Your task to perform on an android device: Search for usb-c on bestbuy, select the first entry, add it to the cart, then select checkout. Image 0: 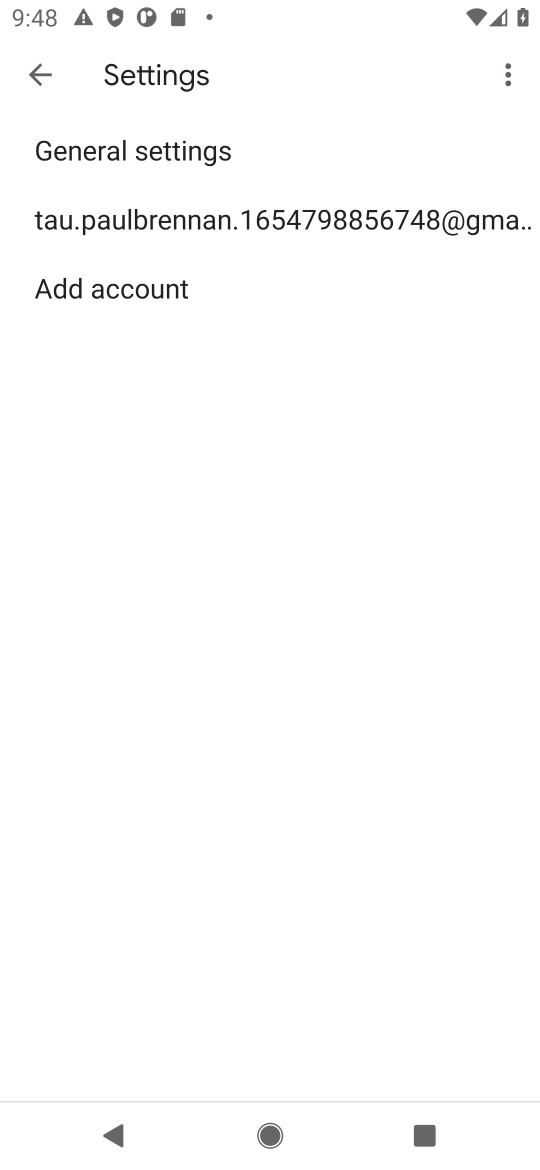
Step 0: press home button
Your task to perform on an android device: Search for usb-c on bestbuy, select the first entry, add it to the cart, then select checkout. Image 1: 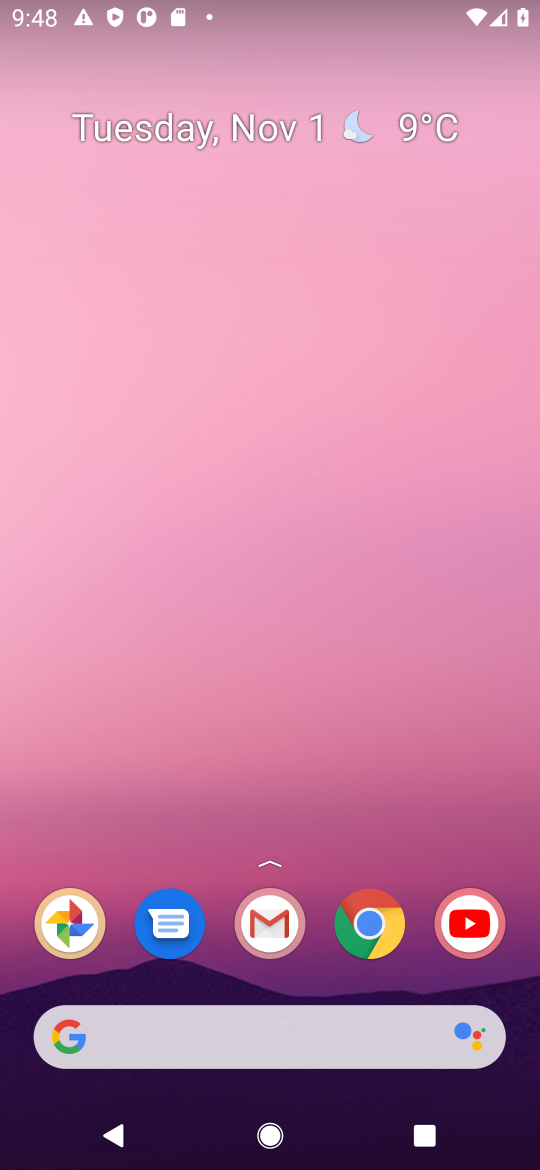
Step 1: drag from (320, 937) to (364, 215)
Your task to perform on an android device: Search for usb-c on bestbuy, select the first entry, add it to the cart, then select checkout. Image 2: 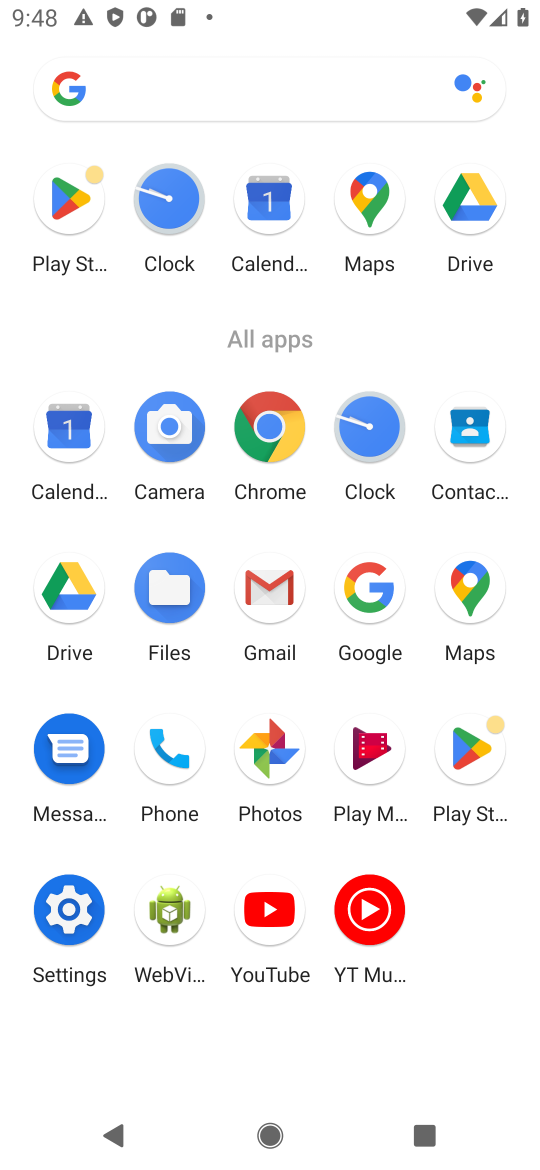
Step 2: click (263, 430)
Your task to perform on an android device: Search for usb-c on bestbuy, select the first entry, add it to the cart, then select checkout. Image 3: 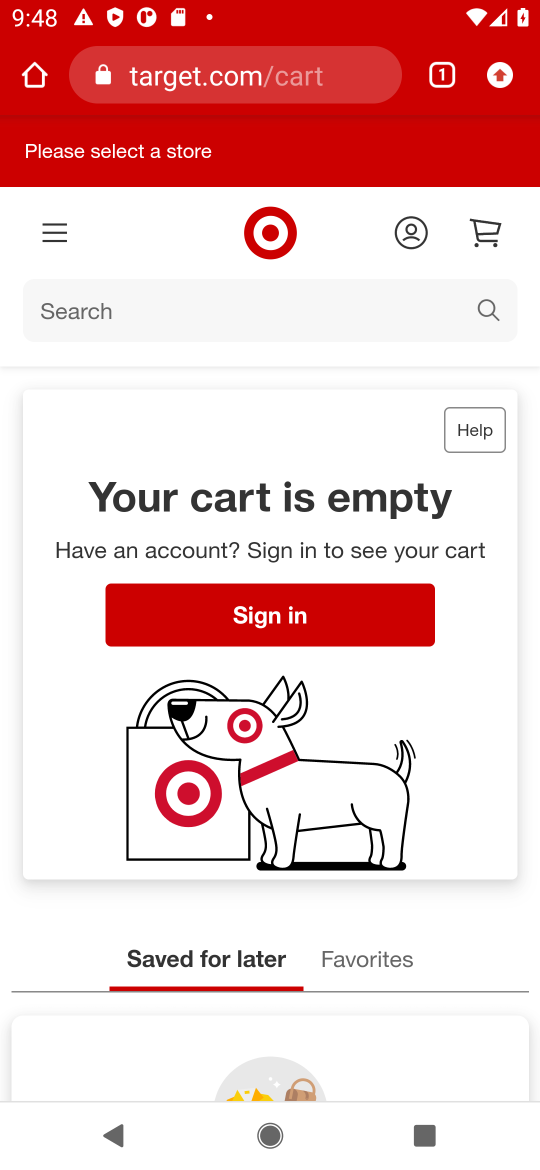
Step 3: click (252, 140)
Your task to perform on an android device: Search for usb-c on bestbuy, select the first entry, add it to the cart, then select checkout. Image 4: 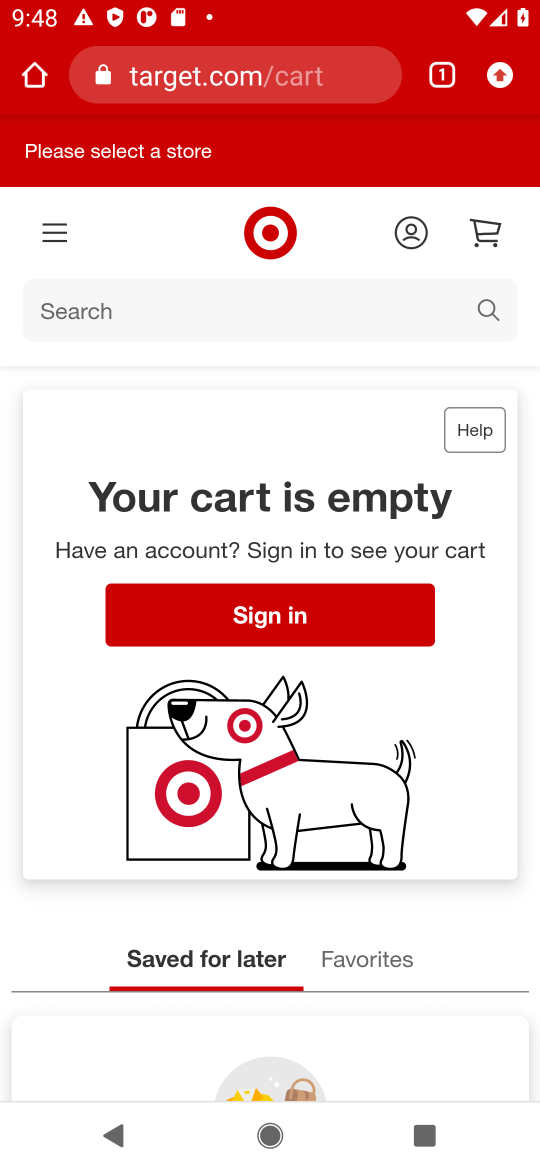
Step 4: click (285, 58)
Your task to perform on an android device: Search for usb-c on bestbuy, select the first entry, add it to the cart, then select checkout. Image 5: 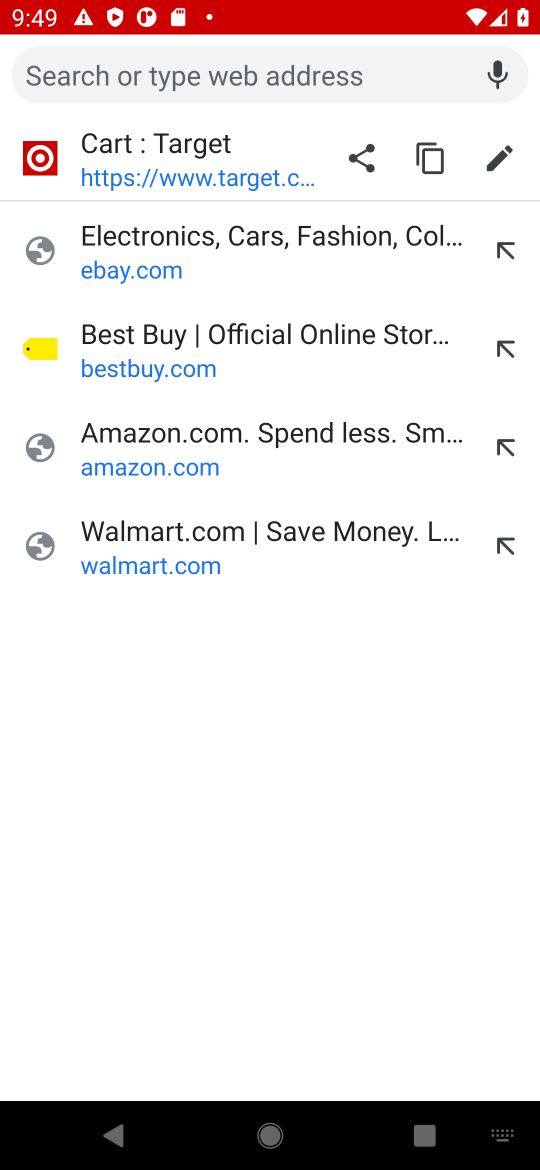
Step 5: type "bestbuy.com"
Your task to perform on an android device: Search for usb-c on bestbuy, select the first entry, add it to the cart, then select checkout. Image 6: 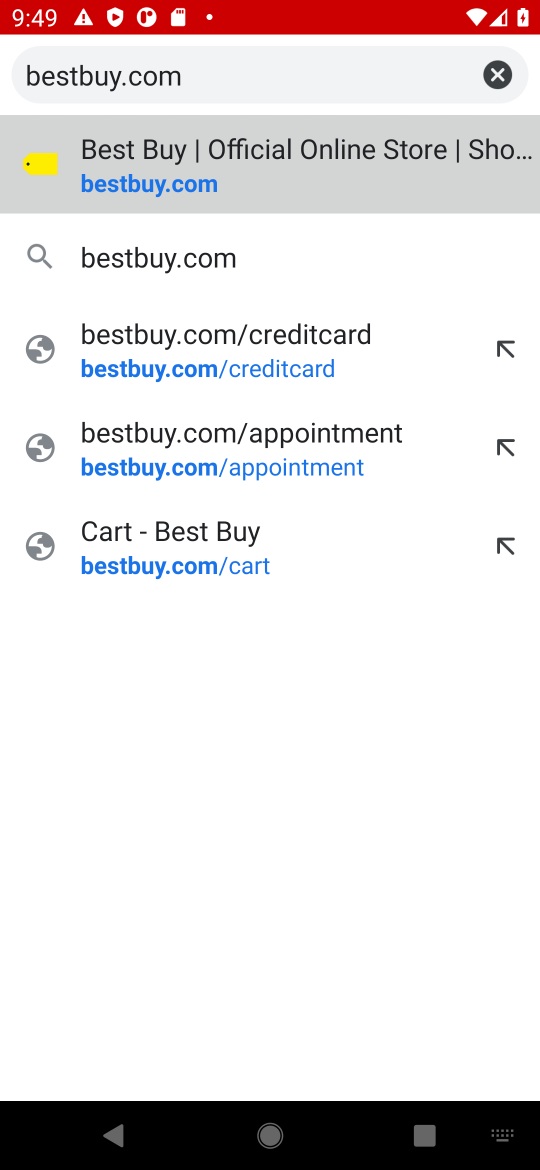
Step 6: press enter
Your task to perform on an android device: Search for usb-c on bestbuy, select the first entry, add it to the cart, then select checkout. Image 7: 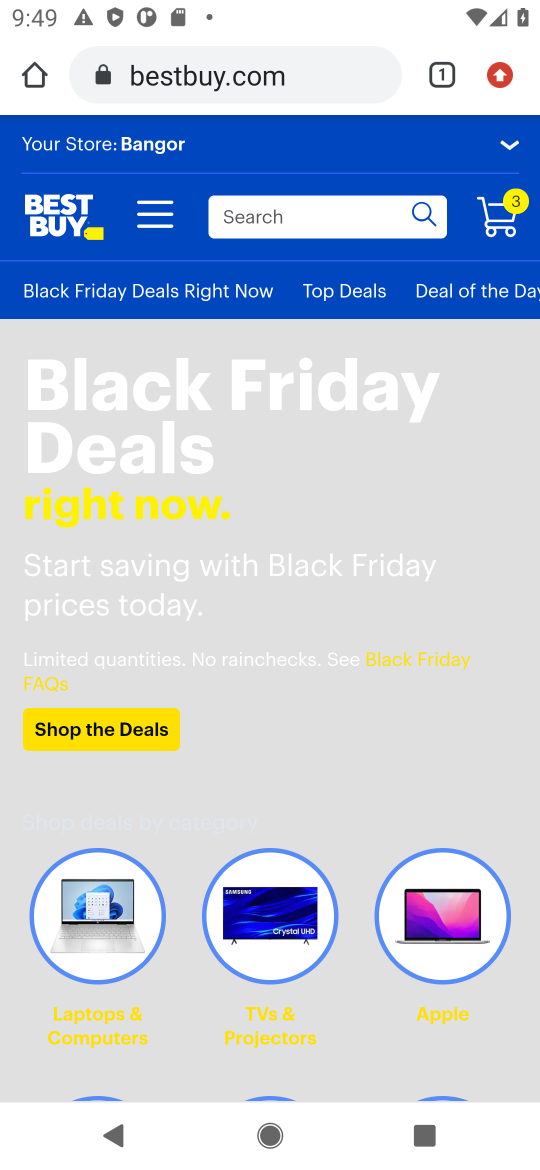
Step 7: click (325, 216)
Your task to perform on an android device: Search for usb-c on bestbuy, select the first entry, add it to the cart, then select checkout. Image 8: 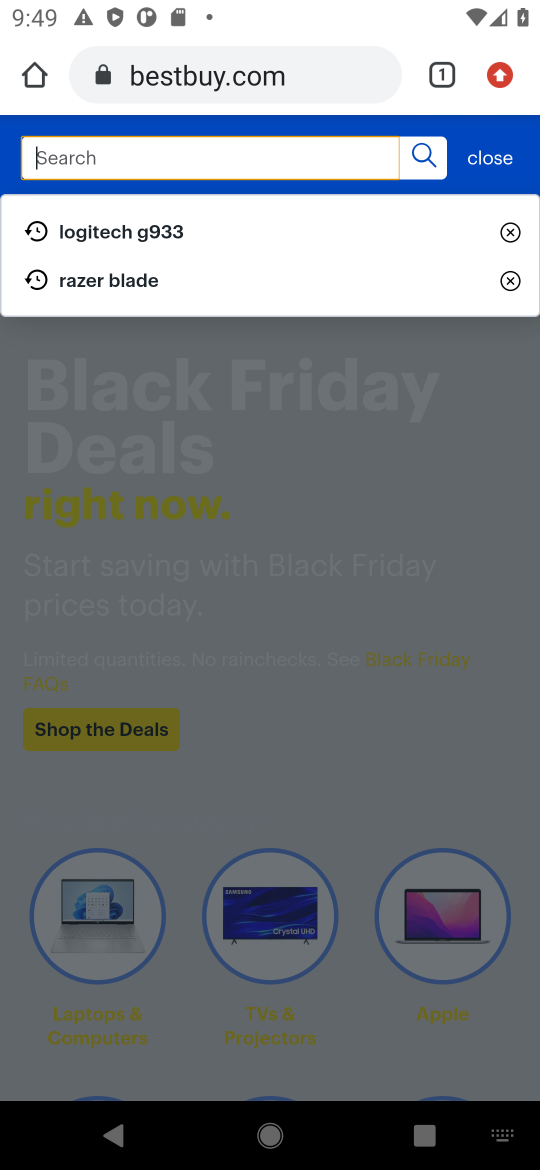
Step 8: type "usb-c"
Your task to perform on an android device: Search for usb-c on bestbuy, select the first entry, add it to the cart, then select checkout. Image 9: 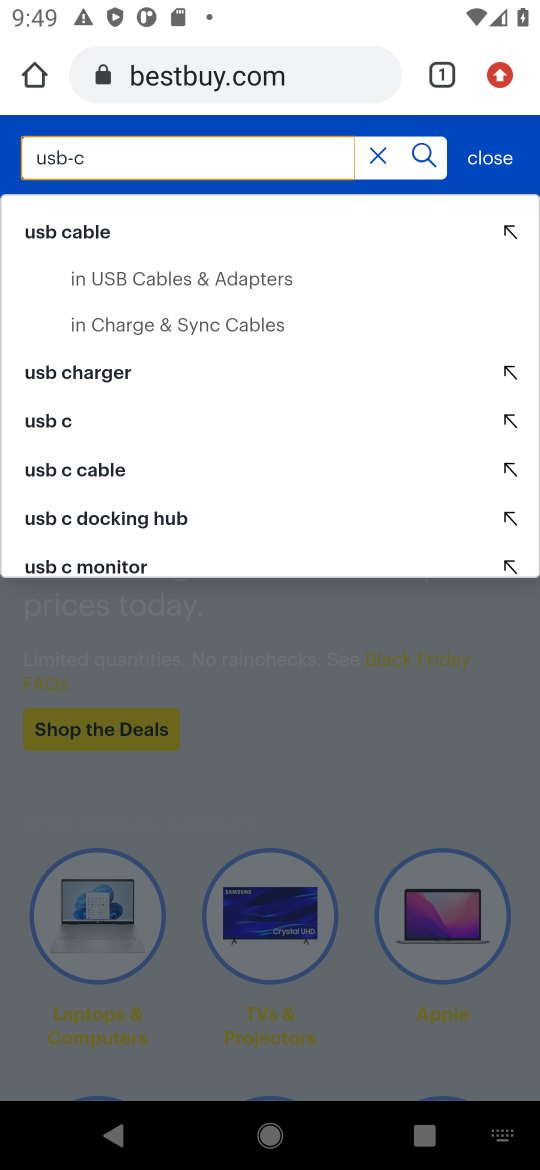
Step 9: press enter
Your task to perform on an android device: Search for usb-c on bestbuy, select the first entry, add it to the cart, then select checkout. Image 10: 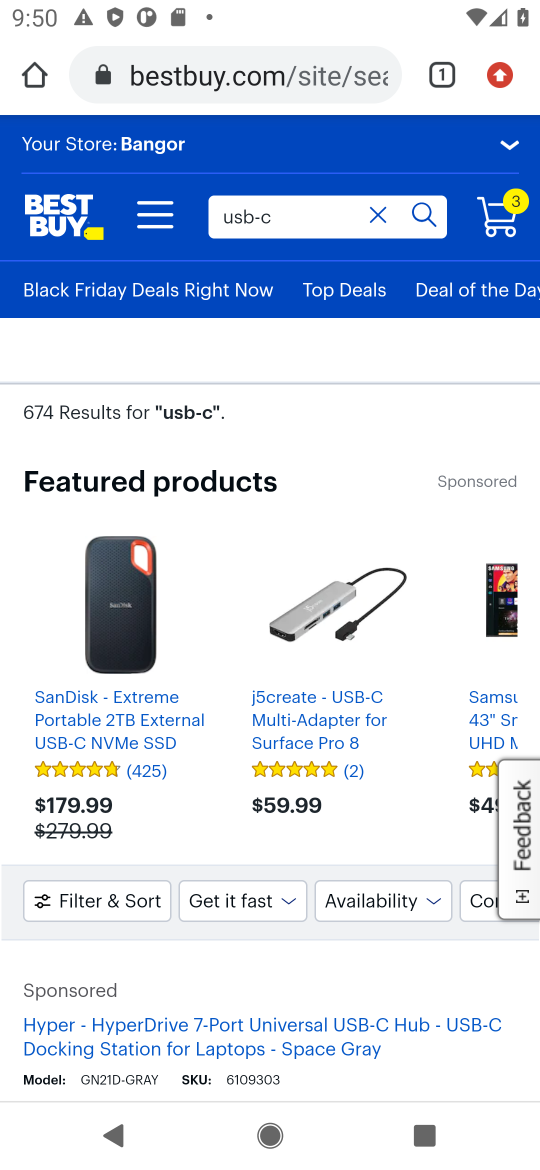
Step 10: drag from (240, 921) to (284, 185)
Your task to perform on an android device: Search for usb-c on bestbuy, select the first entry, add it to the cart, then select checkout. Image 11: 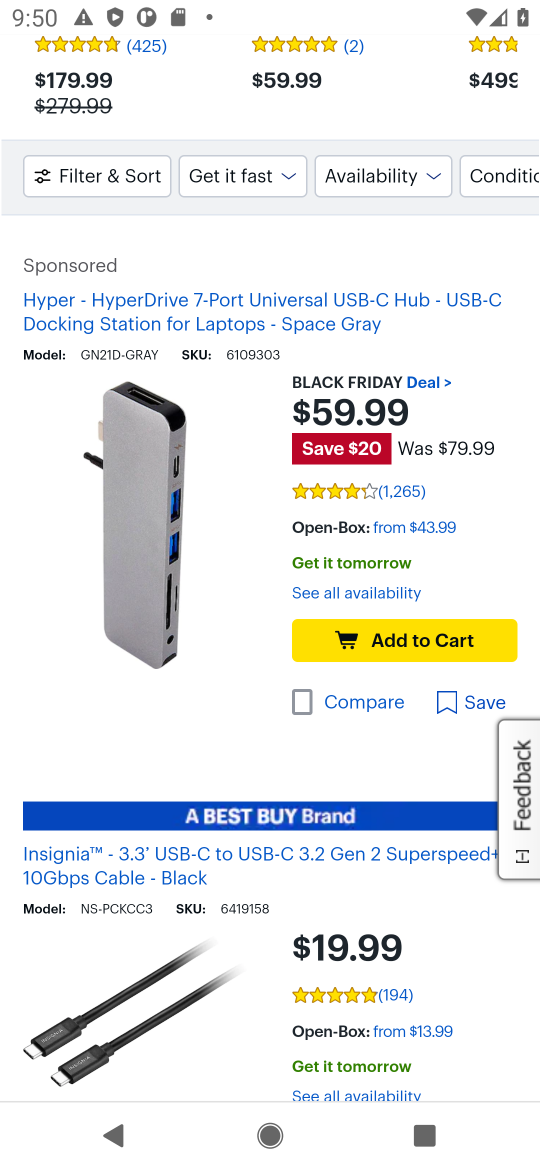
Step 11: drag from (354, 945) to (423, 525)
Your task to perform on an android device: Search for usb-c on bestbuy, select the first entry, add it to the cart, then select checkout. Image 12: 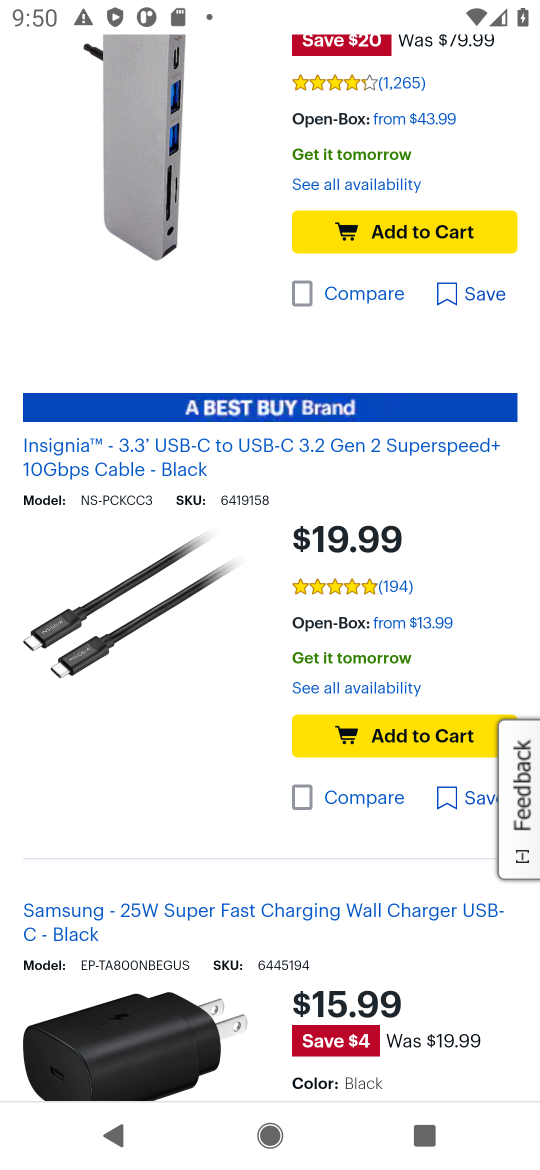
Step 12: click (376, 741)
Your task to perform on an android device: Search for usb-c on bestbuy, select the first entry, add it to the cart, then select checkout. Image 13: 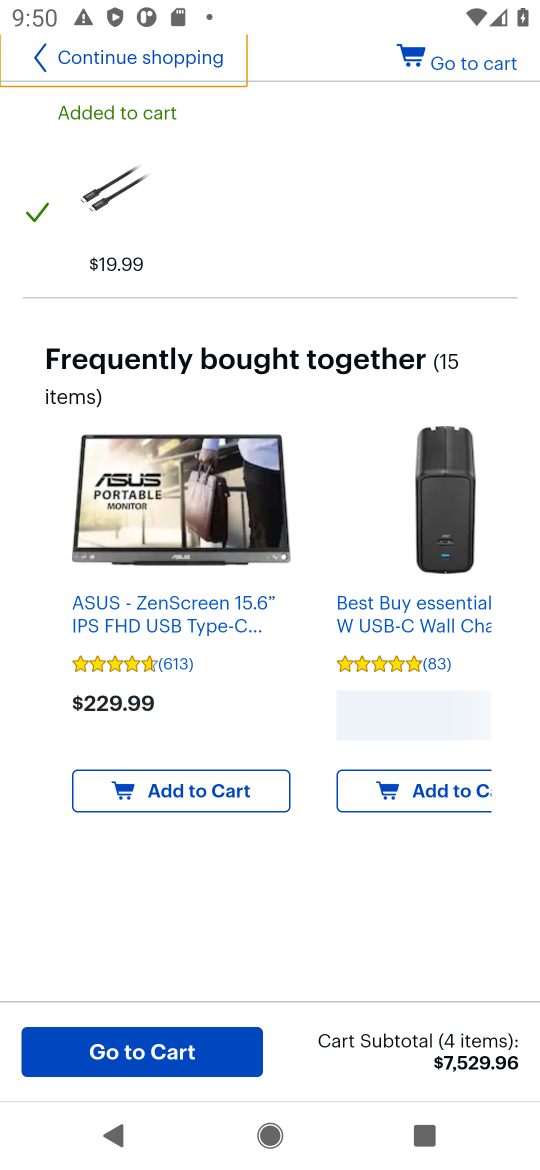
Step 13: drag from (334, 210) to (279, 996)
Your task to perform on an android device: Search for usb-c on bestbuy, select the first entry, add it to the cart, then select checkout. Image 14: 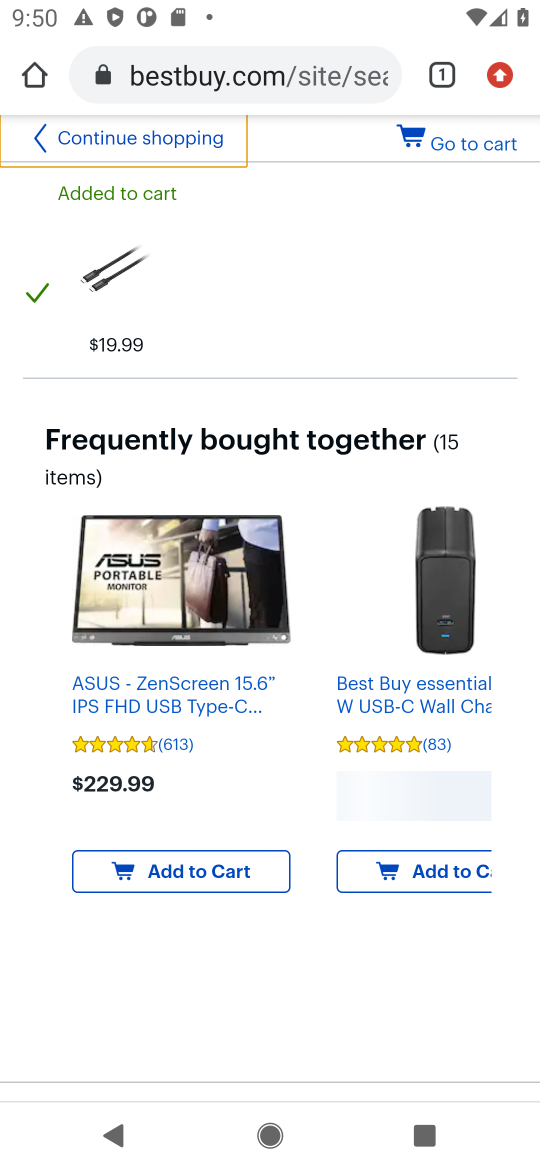
Step 14: drag from (336, 252) to (269, 939)
Your task to perform on an android device: Search for usb-c on bestbuy, select the first entry, add it to the cart, then select checkout. Image 15: 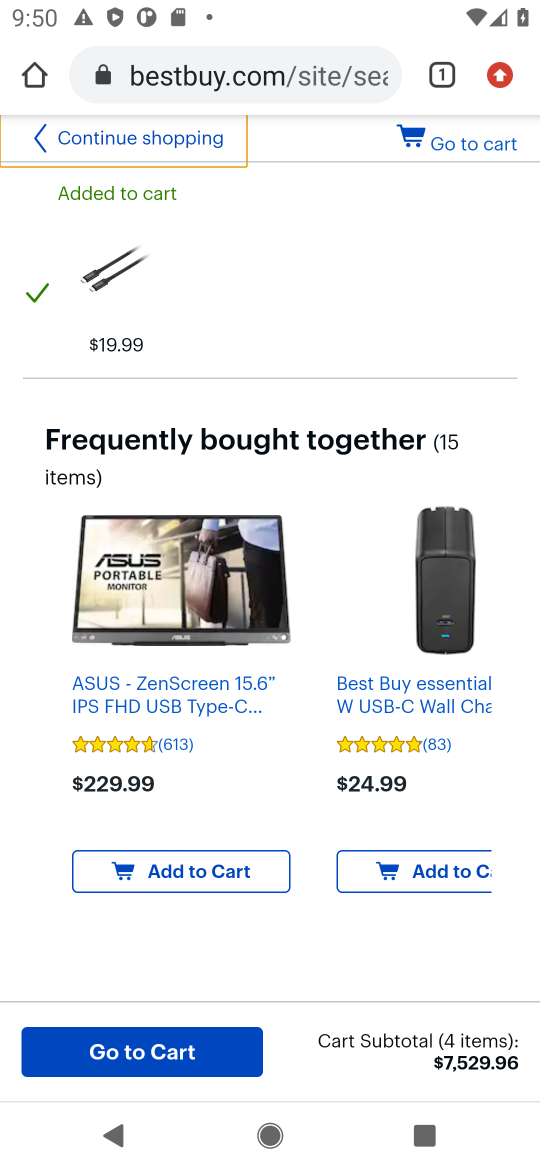
Step 15: click (181, 1055)
Your task to perform on an android device: Search for usb-c on bestbuy, select the first entry, add it to the cart, then select checkout. Image 16: 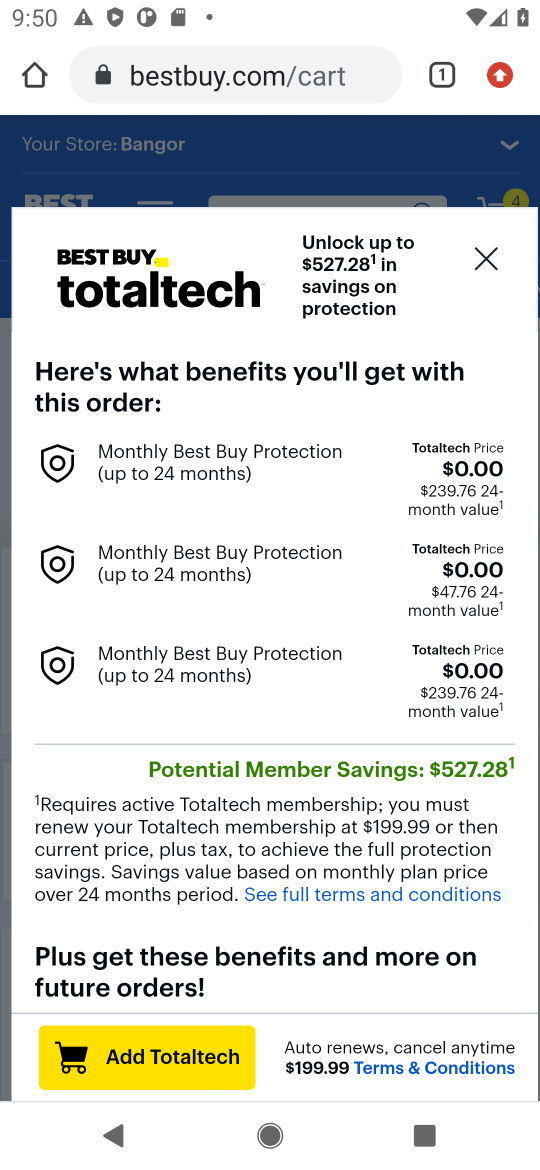
Step 16: click (494, 254)
Your task to perform on an android device: Search for usb-c on bestbuy, select the first entry, add it to the cart, then select checkout. Image 17: 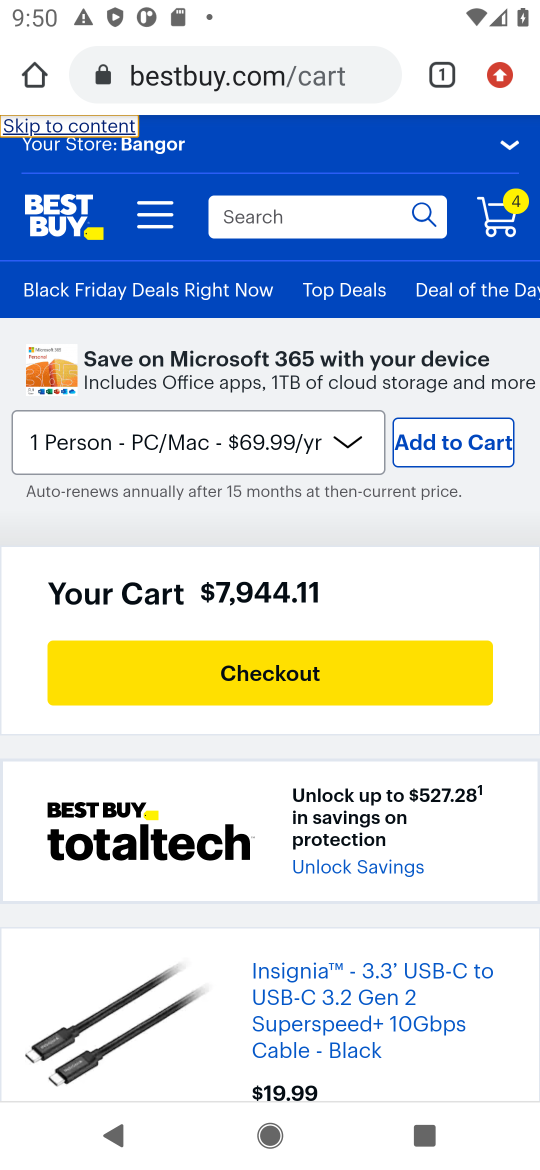
Step 17: click (360, 671)
Your task to perform on an android device: Search for usb-c on bestbuy, select the first entry, add it to the cart, then select checkout. Image 18: 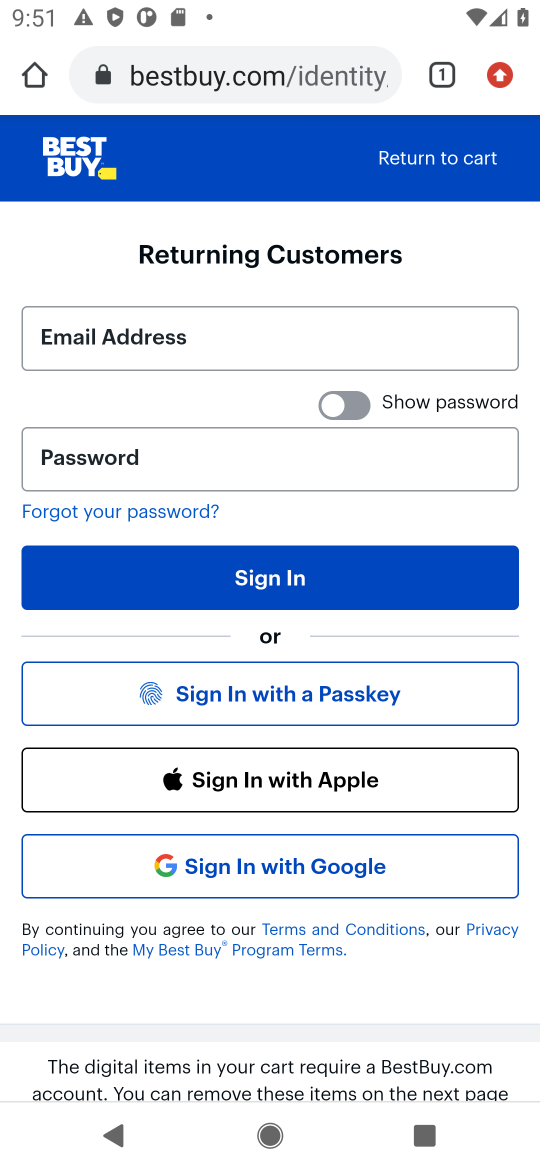
Step 18: task complete